Your task to perform on an android device: turn pop-ups on in chrome Image 0: 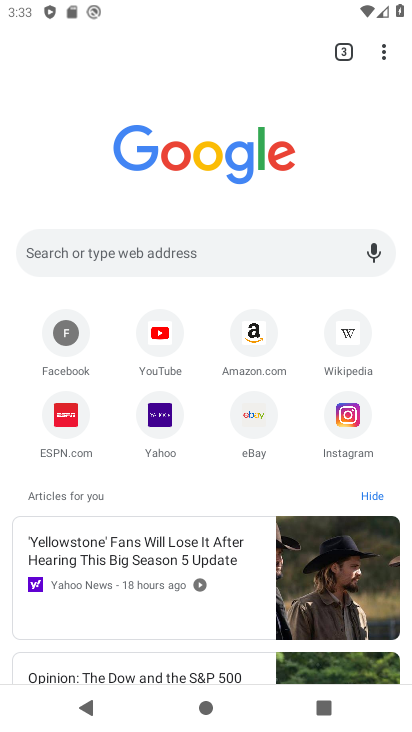
Step 0: click (383, 51)
Your task to perform on an android device: turn pop-ups on in chrome Image 1: 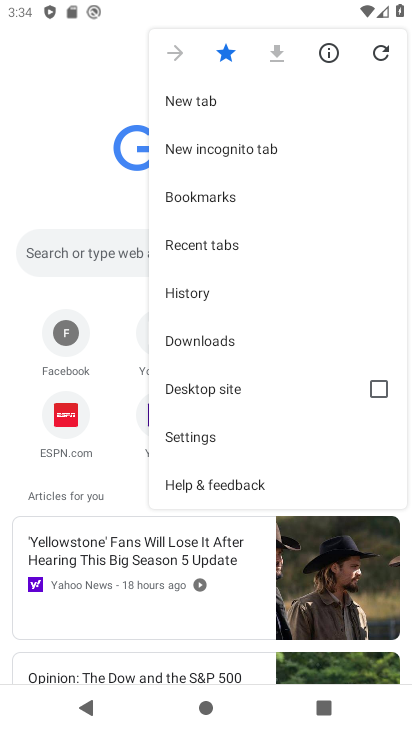
Step 1: click (192, 435)
Your task to perform on an android device: turn pop-ups on in chrome Image 2: 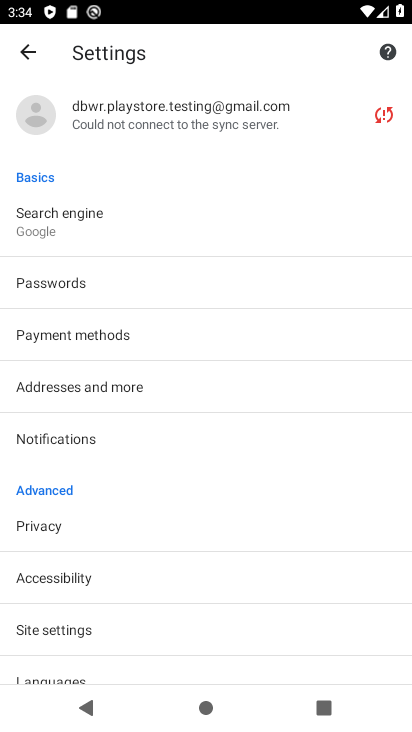
Step 2: click (49, 631)
Your task to perform on an android device: turn pop-ups on in chrome Image 3: 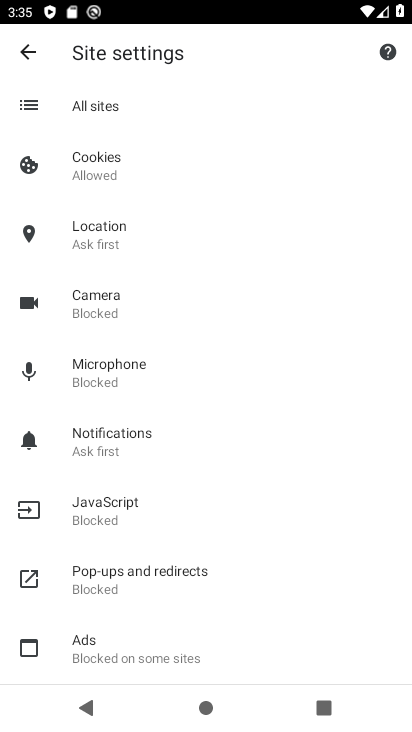
Step 3: click (120, 575)
Your task to perform on an android device: turn pop-ups on in chrome Image 4: 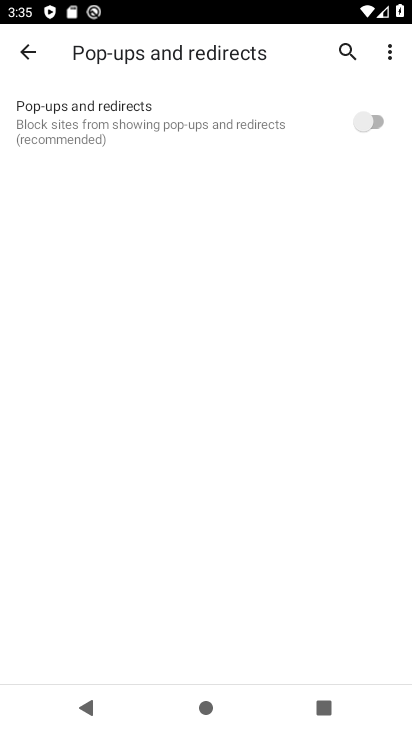
Step 4: click (376, 117)
Your task to perform on an android device: turn pop-ups on in chrome Image 5: 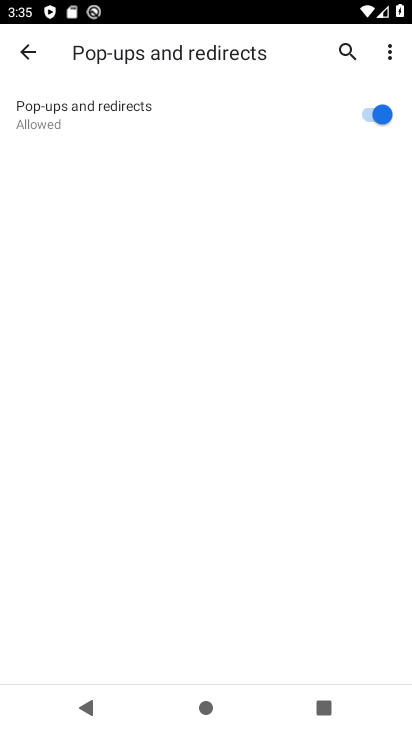
Step 5: task complete